Your task to perform on an android device: Open internet settings Image 0: 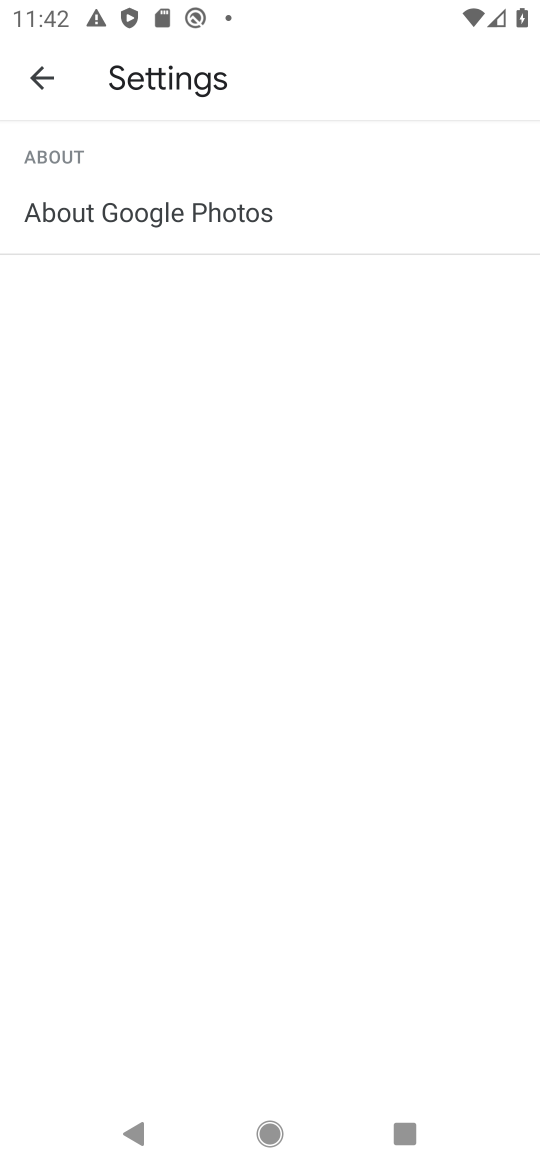
Step 0: press home button
Your task to perform on an android device: Open internet settings Image 1: 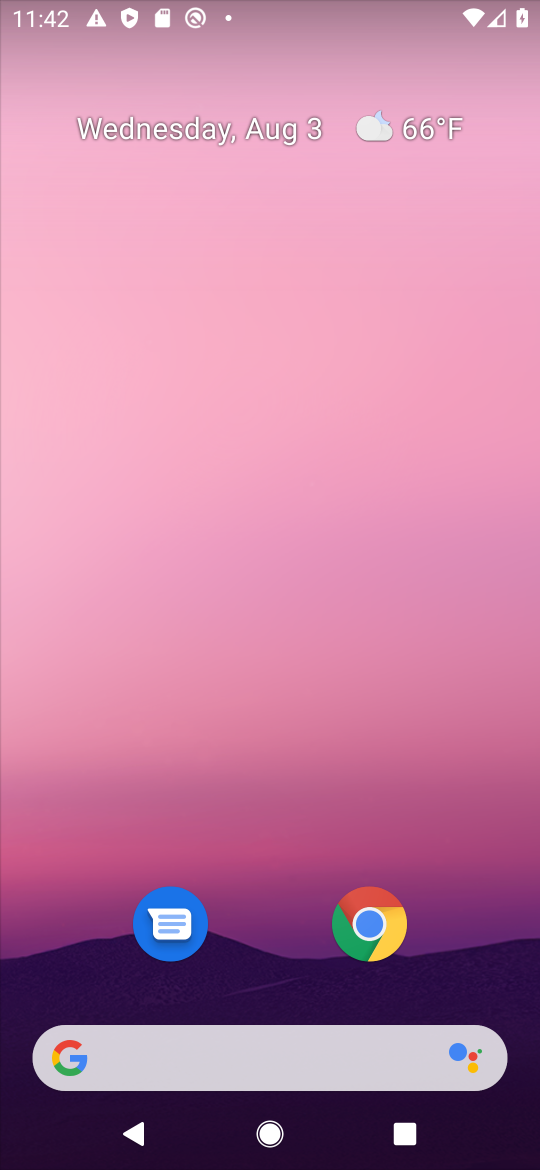
Step 1: drag from (200, 580) to (324, 58)
Your task to perform on an android device: Open internet settings Image 2: 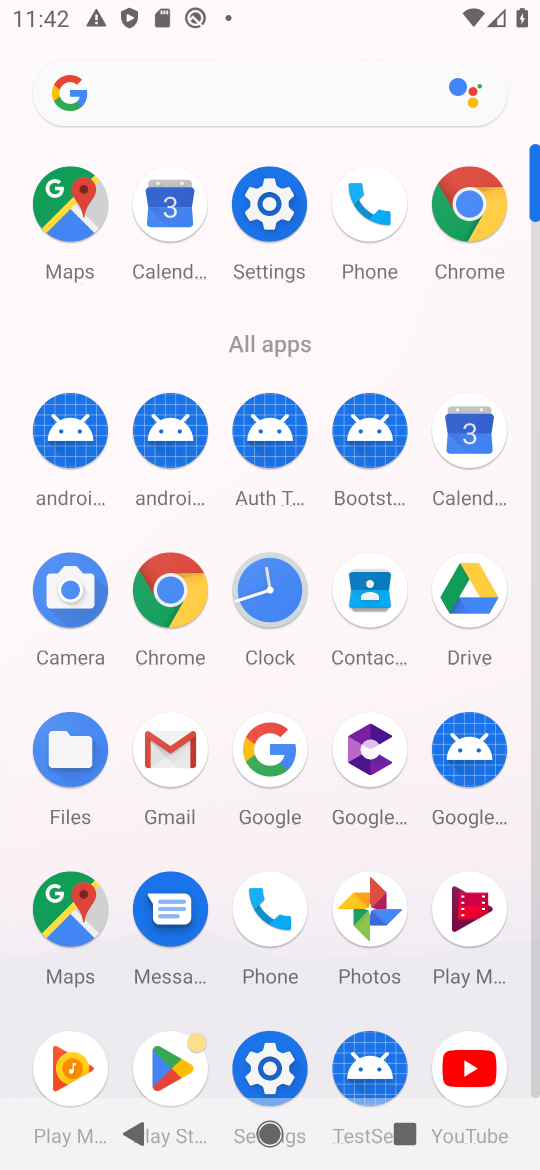
Step 2: click (248, 1069)
Your task to perform on an android device: Open internet settings Image 3: 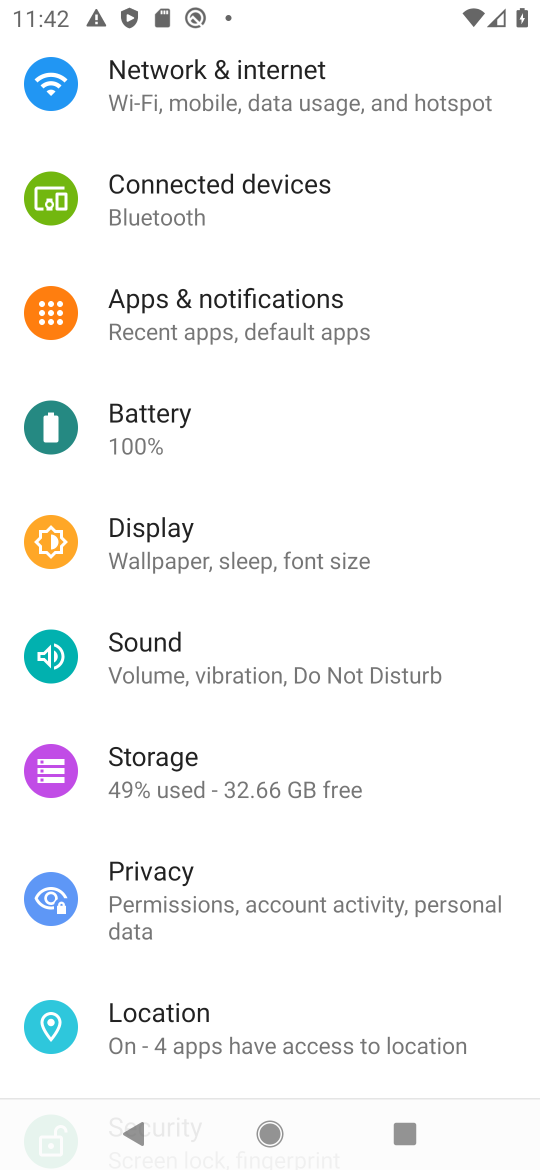
Step 3: click (268, 84)
Your task to perform on an android device: Open internet settings Image 4: 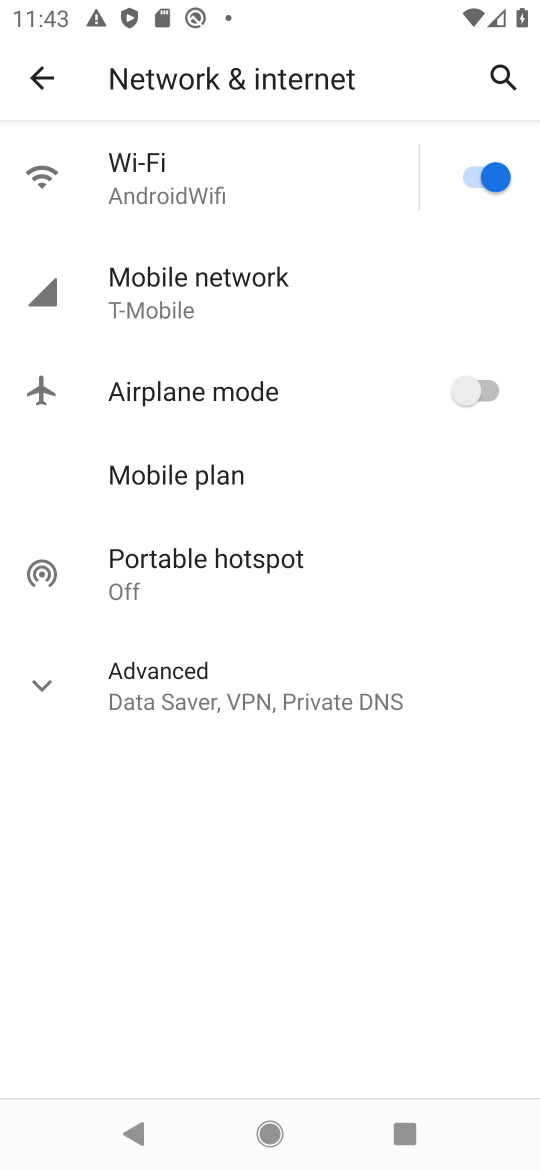
Step 4: task complete